Your task to perform on an android device: check google app version Image 0: 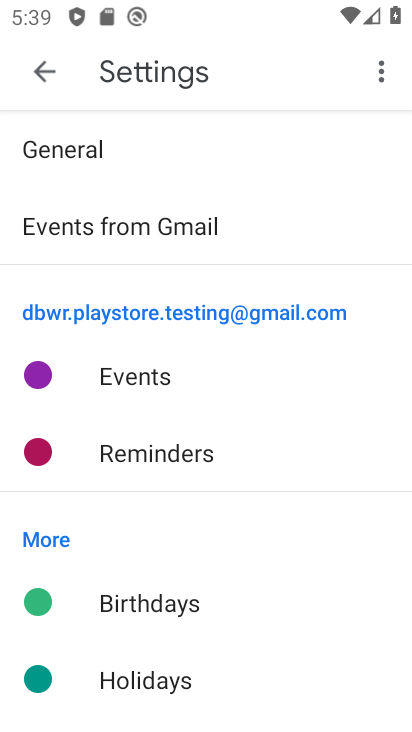
Step 0: press home button
Your task to perform on an android device: check google app version Image 1: 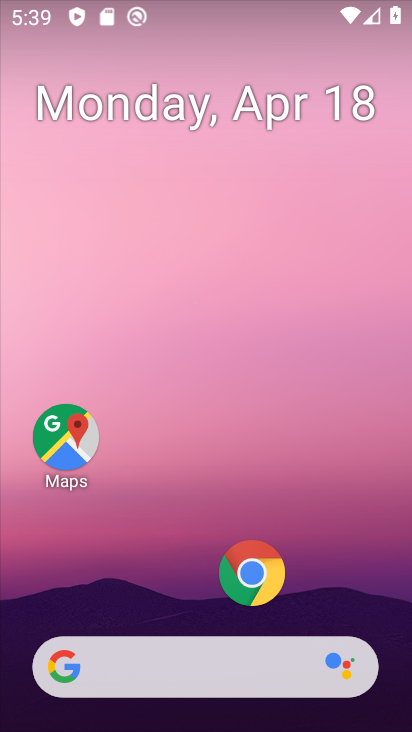
Step 1: click (54, 672)
Your task to perform on an android device: check google app version Image 2: 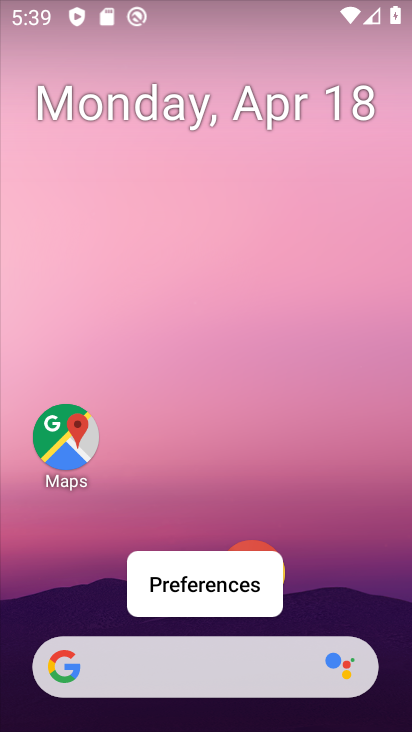
Step 2: click (54, 671)
Your task to perform on an android device: check google app version Image 3: 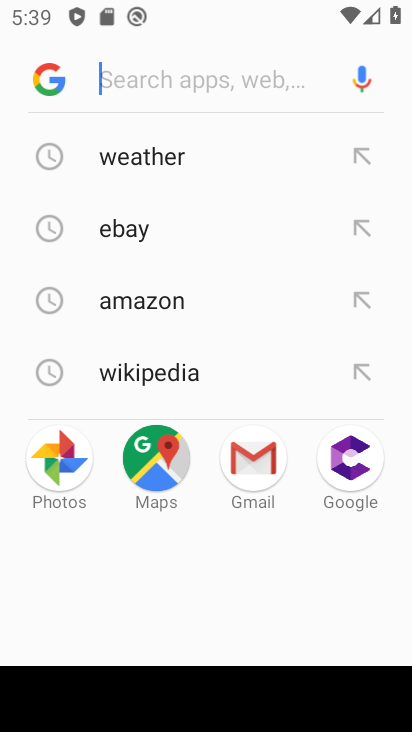
Step 3: click (39, 83)
Your task to perform on an android device: check google app version Image 4: 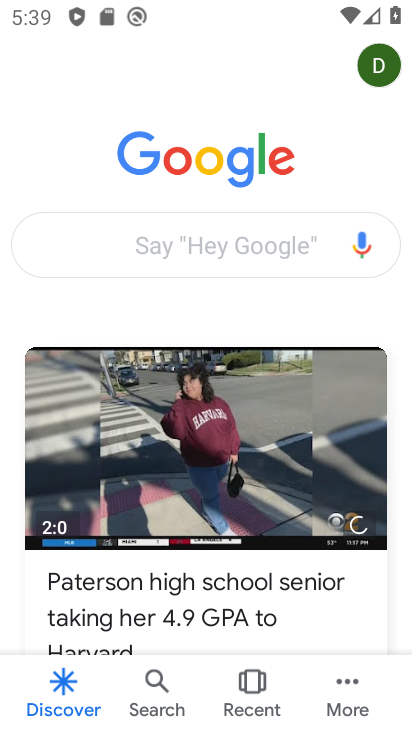
Step 4: click (344, 694)
Your task to perform on an android device: check google app version Image 5: 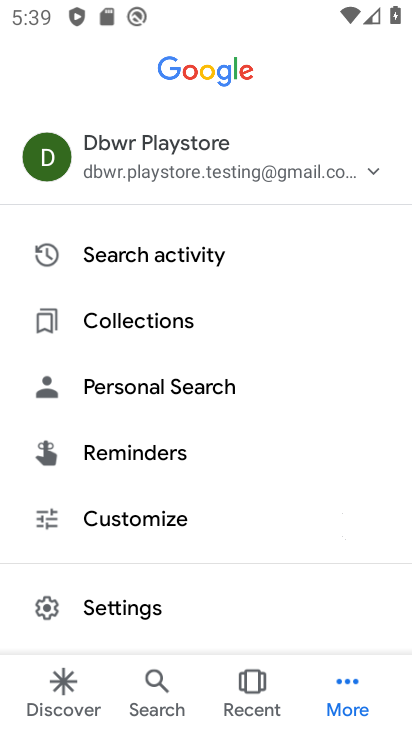
Step 5: click (124, 604)
Your task to perform on an android device: check google app version Image 6: 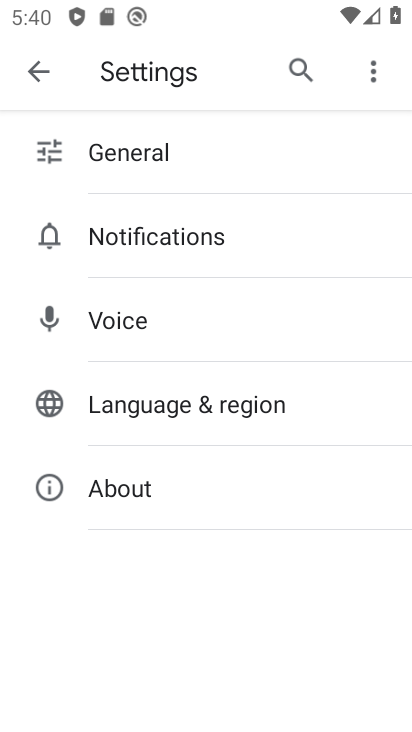
Step 6: click (131, 498)
Your task to perform on an android device: check google app version Image 7: 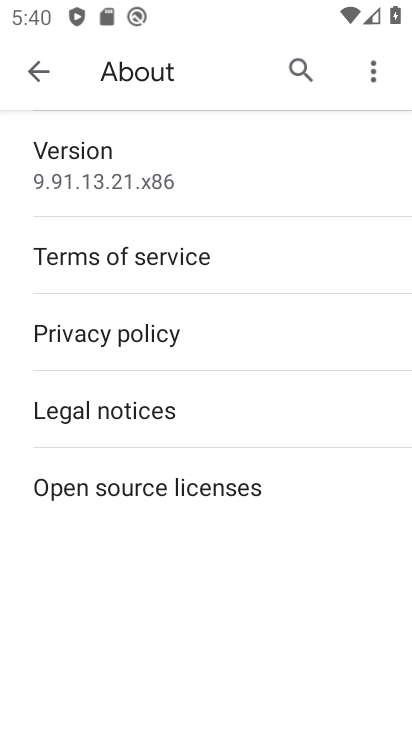
Step 7: task complete